Your task to perform on an android device: toggle wifi Image 0: 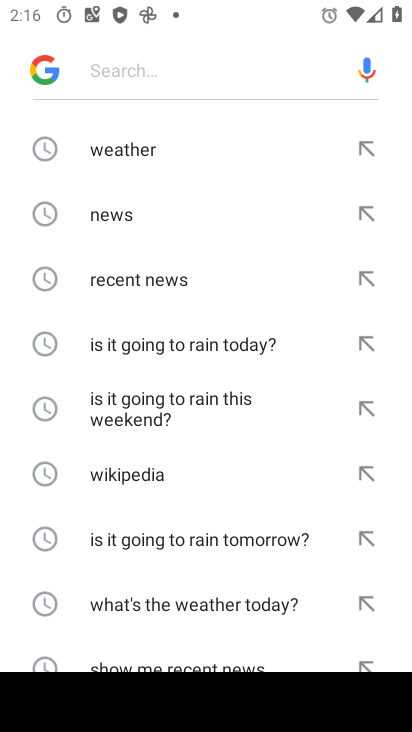
Step 0: press home button
Your task to perform on an android device: toggle wifi Image 1: 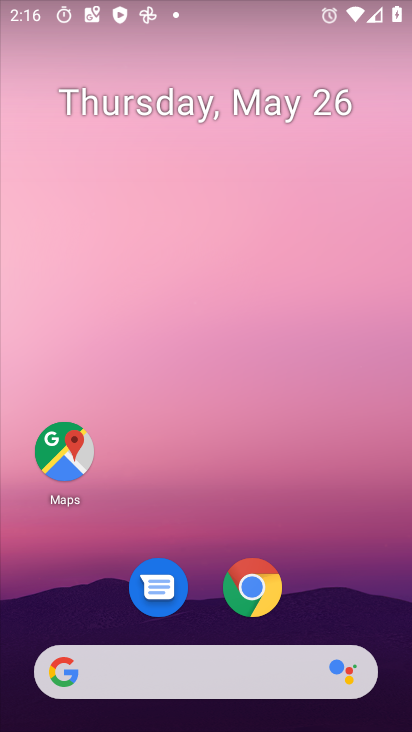
Step 1: drag from (363, 596) to (347, 221)
Your task to perform on an android device: toggle wifi Image 2: 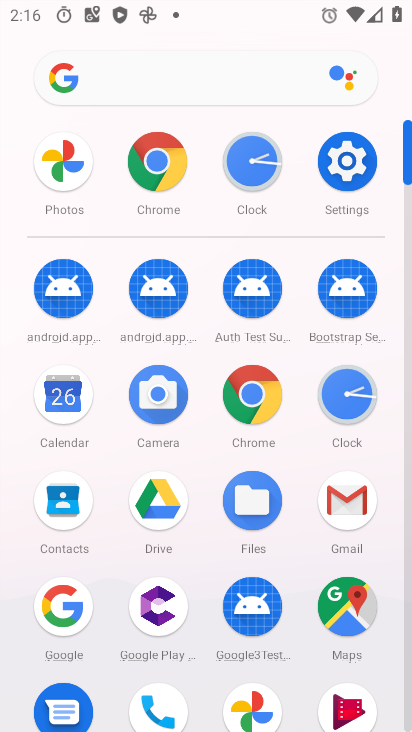
Step 2: click (354, 175)
Your task to perform on an android device: toggle wifi Image 3: 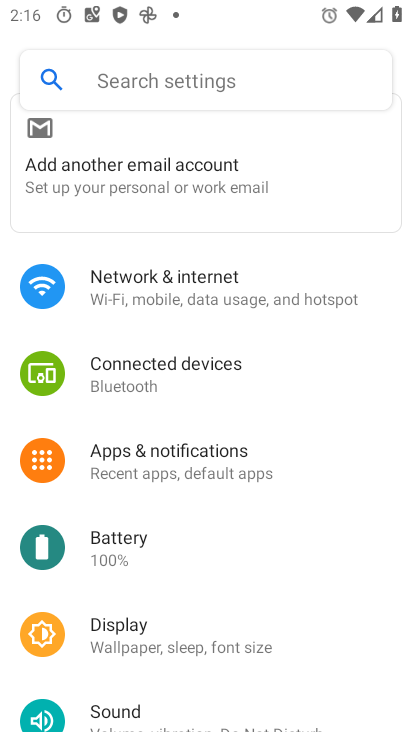
Step 3: drag from (344, 485) to (342, 372)
Your task to perform on an android device: toggle wifi Image 4: 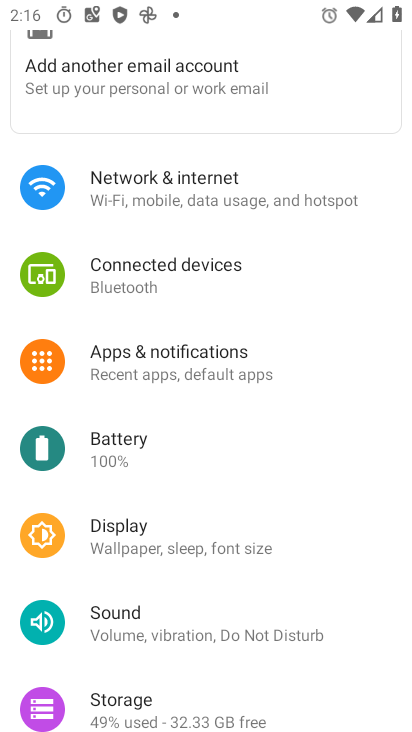
Step 4: drag from (358, 443) to (361, 361)
Your task to perform on an android device: toggle wifi Image 5: 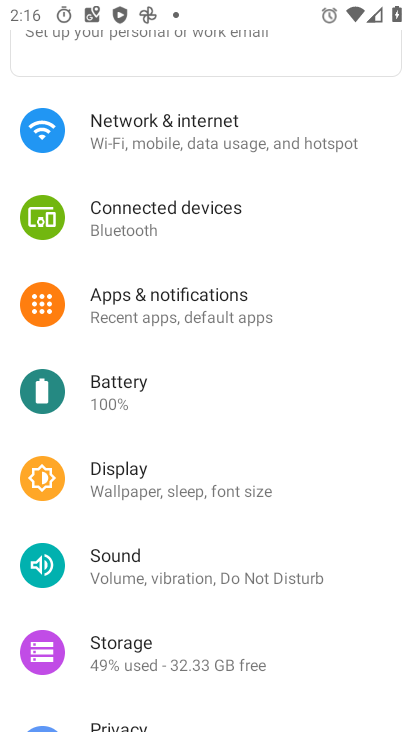
Step 5: drag from (357, 489) to (356, 430)
Your task to perform on an android device: toggle wifi Image 6: 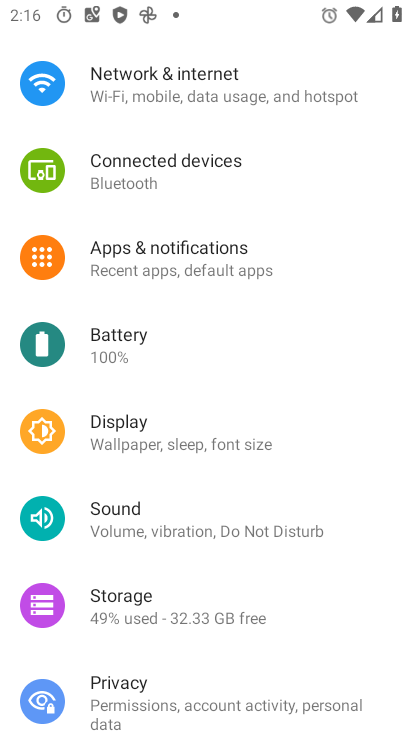
Step 6: drag from (362, 532) to (372, 438)
Your task to perform on an android device: toggle wifi Image 7: 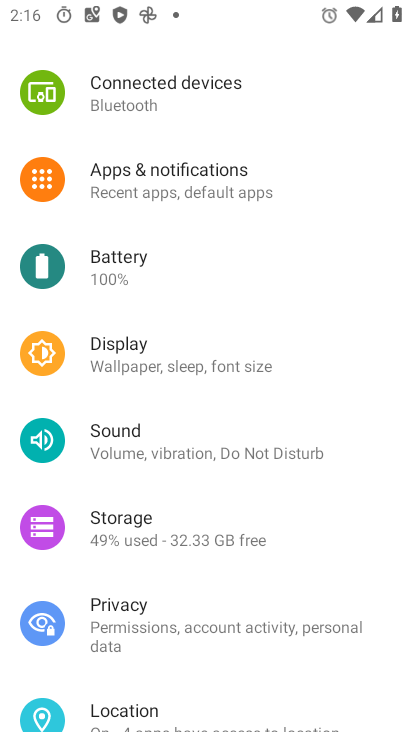
Step 7: drag from (363, 532) to (370, 447)
Your task to perform on an android device: toggle wifi Image 8: 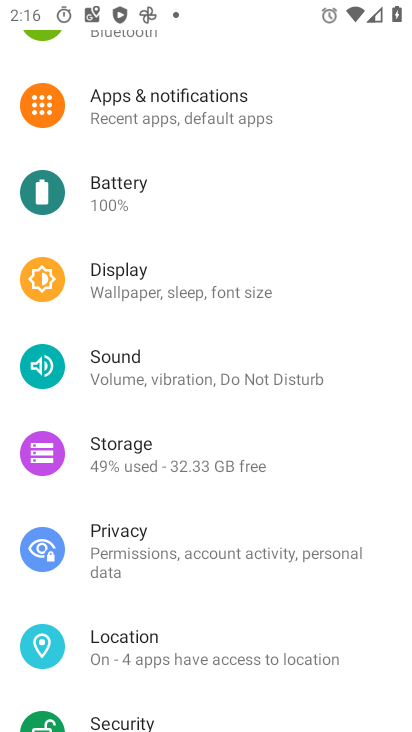
Step 8: drag from (347, 531) to (353, 469)
Your task to perform on an android device: toggle wifi Image 9: 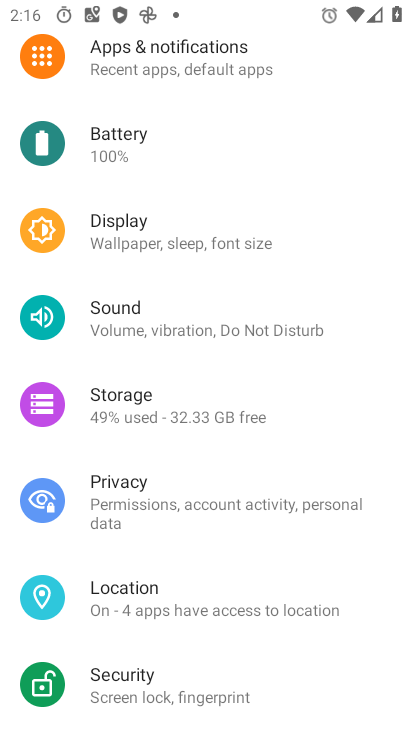
Step 9: drag from (342, 565) to (352, 497)
Your task to perform on an android device: toggle wifi Image 10: 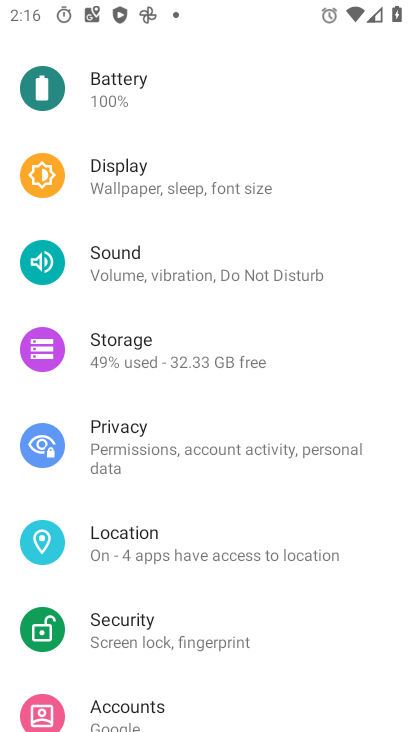
Step 10: drag from (359, 586) to (362, 494)
Your task to perform on an android device: toggle wifi Image 11: 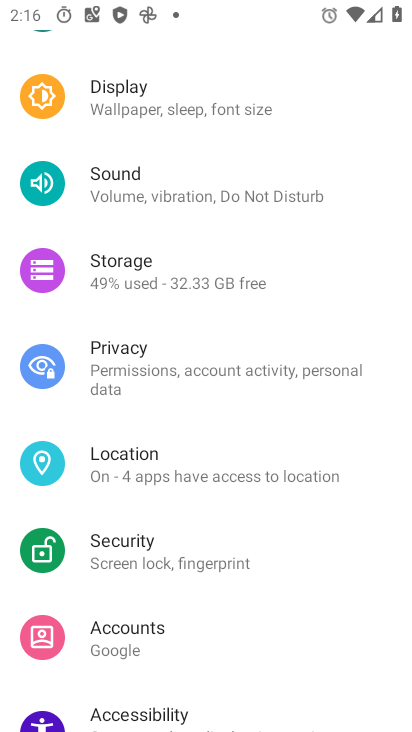
Step 11: drag from (351, 580) to (357, 504)
Your task to perform on an android device: toggle wifi Image 12: 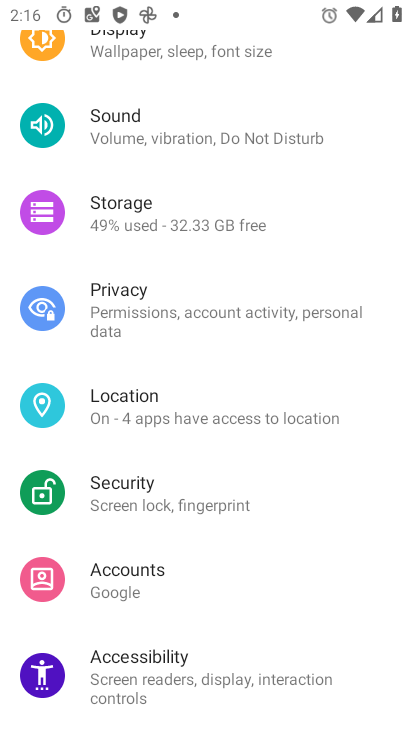
Step 12: drag from (354, 589) to (359, 451)
Your task to perform on an android device: toggle wifi Image 13: 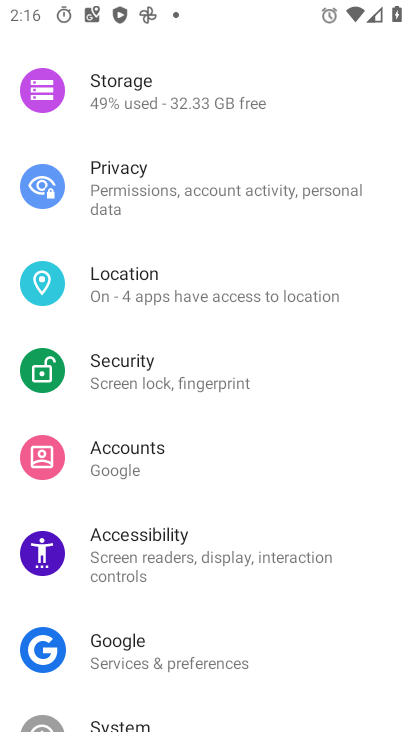
Step 13: drag from (346, 639) to (349, 493)
Your task to perform on an android device: toggle wifi Image 14: 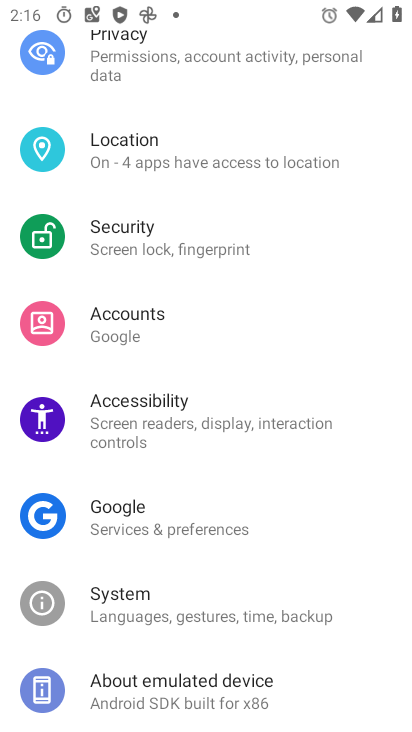
Step 14: drag from (350, 666) to (355, 500)
Your task to perform on an android device: toggle wifi Image 15: 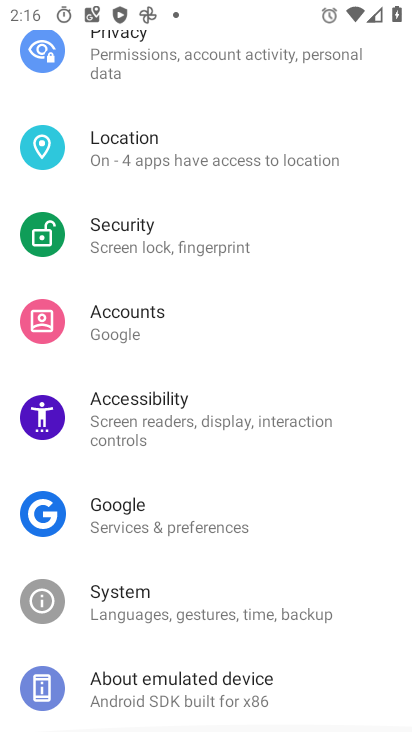
Step 15: drag from (360, 457) to (353, 536)
Your task to perform on an android device: toggle wifi Image 16: 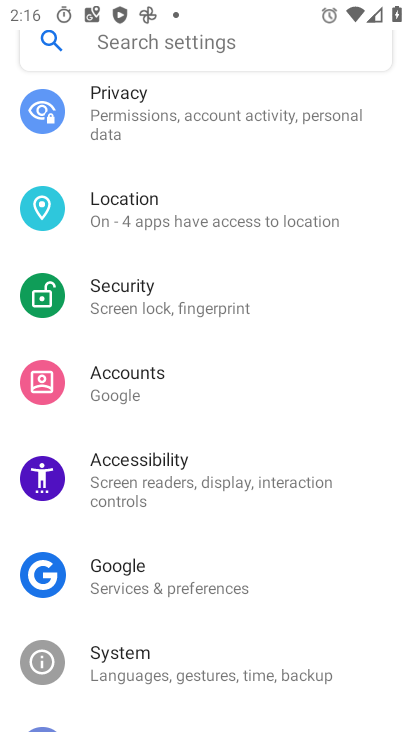
Step 16: drag from (361, 406) to (362, 512)
Your task to perform on an android device: toggle wifi Image 17: 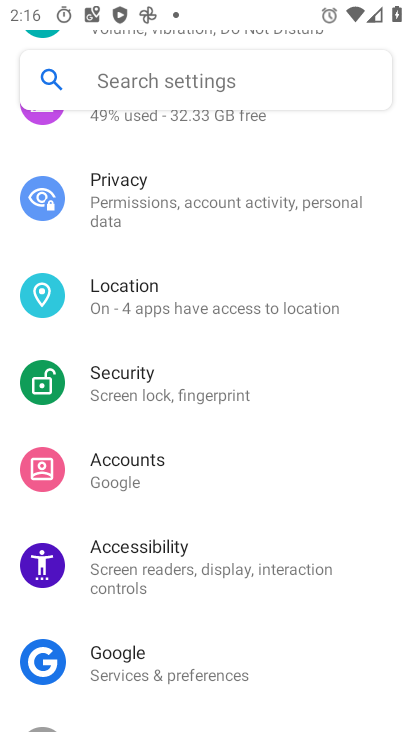
Step 17: drag from (355, 417) to (357, 514)
Your task to perform on an android device: toggle wifi Image 18: 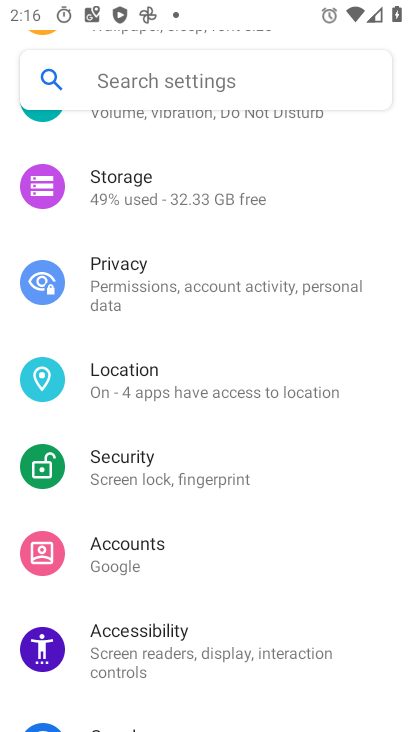
Step 18: drag from (363, 413) to (370, 494)
Your task to perform on an android device: toggle wifi Image 19: 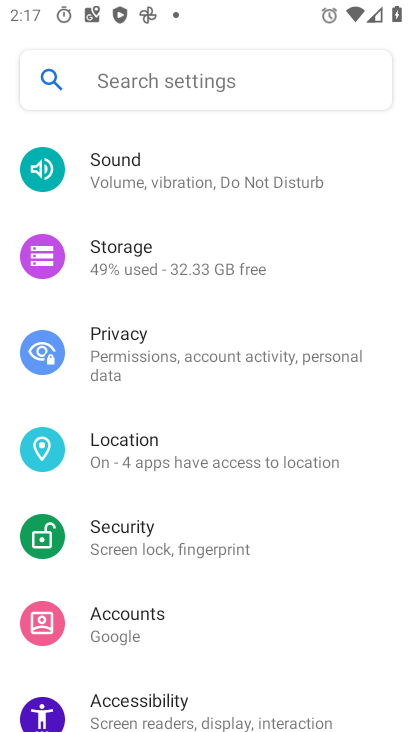
Step 19: drag from (361, 394) to (370, 504)
Your task to perform on an android device: toggle wifi Image 20: 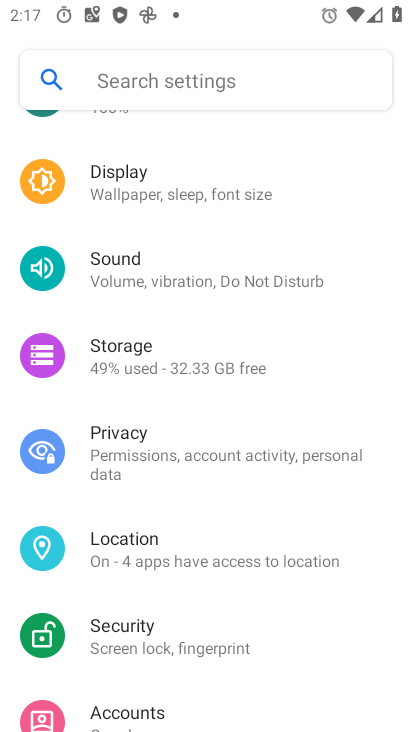
Step 20: drag from (375, 386) to (388, 490)
Your task to perform on an android device: toggle wifi Image 21: 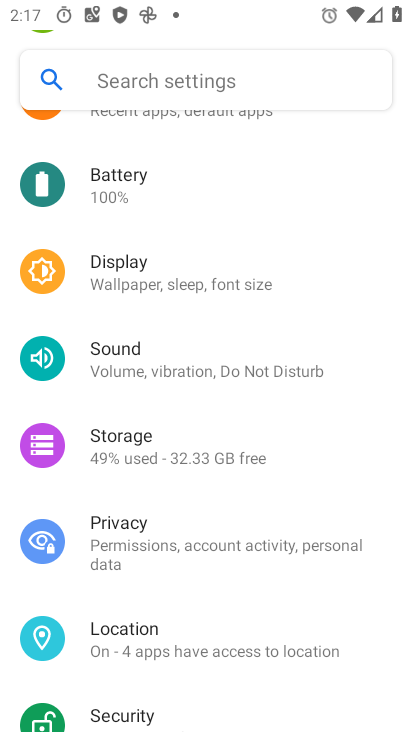
Step 21: drag from (358, 376) to (364, 480)
Your task to perform on an android device: toggle wifi Image 22: 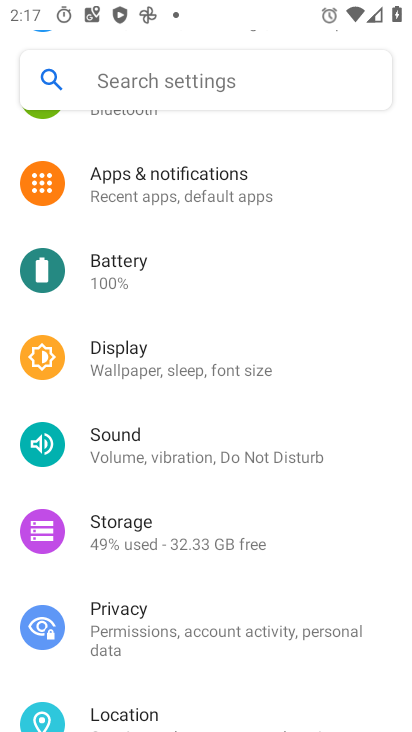
Step 22: drag from (348, 358) to (350, 481)
Your task to perform on an android device: toggle wifi Image 23: 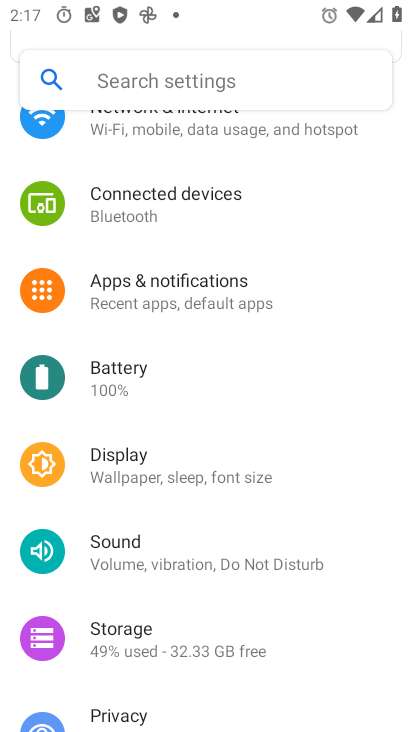
Step 23: drag from (356, 312) to (336, 440)
Your task to perform on an android device: toggle wifi Image 24: 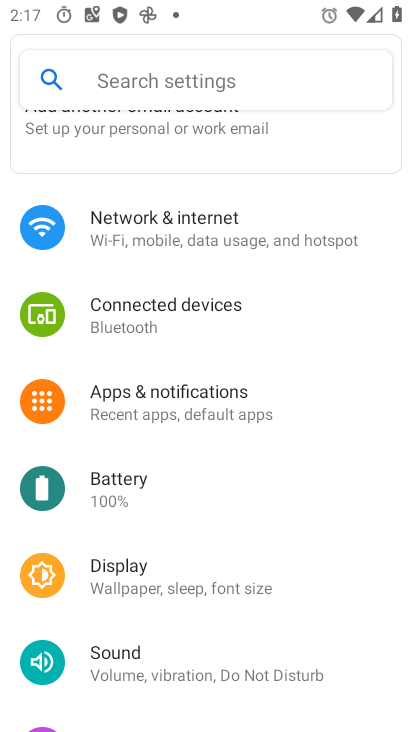
Step 24: drag from (332, 286) to (311, 497)
Your task to perform on an android device: toggle wifi Image 25: 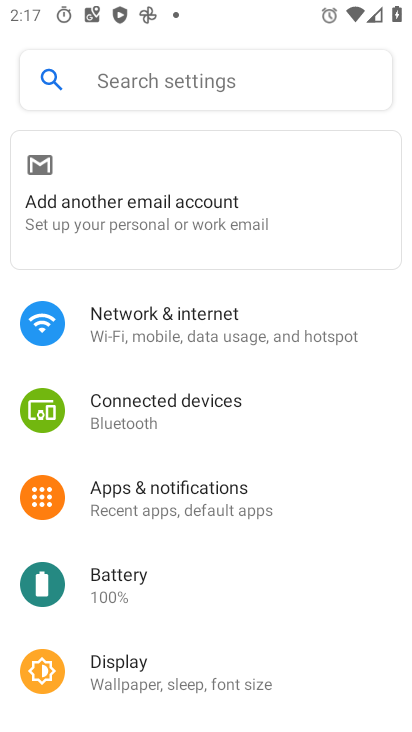
Step 25: click (277, 321)
Your task to perform on an android device: toggle wifi Image 26: 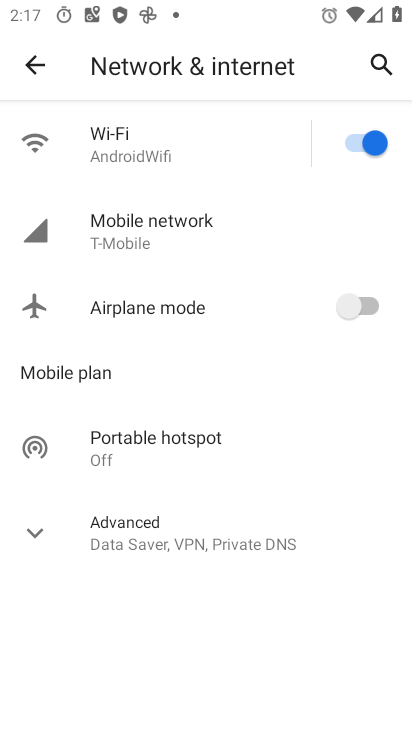
Step 26: click (372, 144)
Your task to perform on an android device: toggle wifi Image 27: 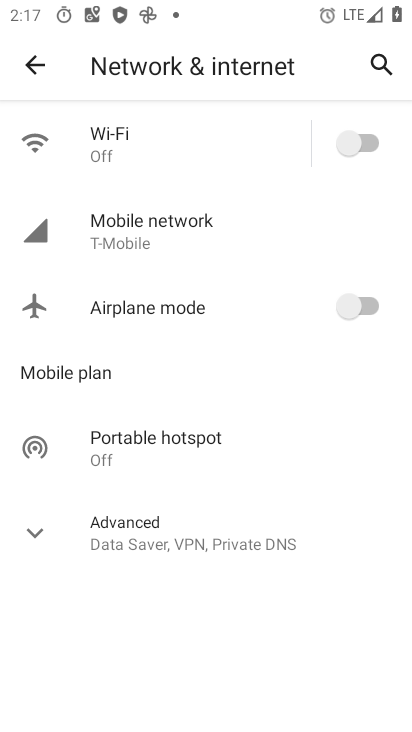
Step 27: task complete